Your task to perform on an android device: delete the emails in spam in the gmail app Image 0: 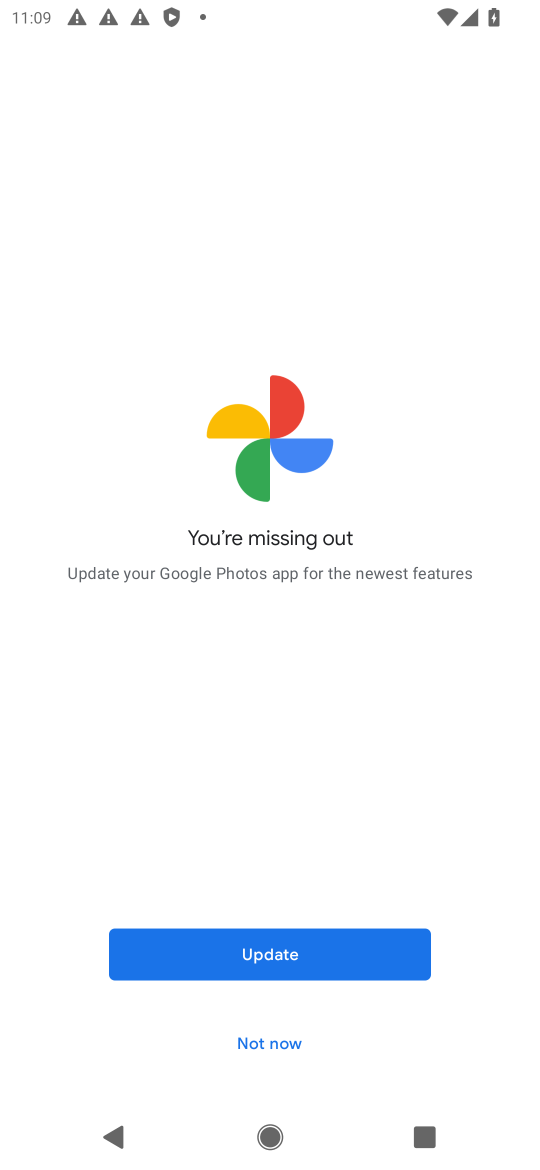
Step 0: press back button
Your task to perform on an android device: delete the emails in spam in the gmail app Image 1: 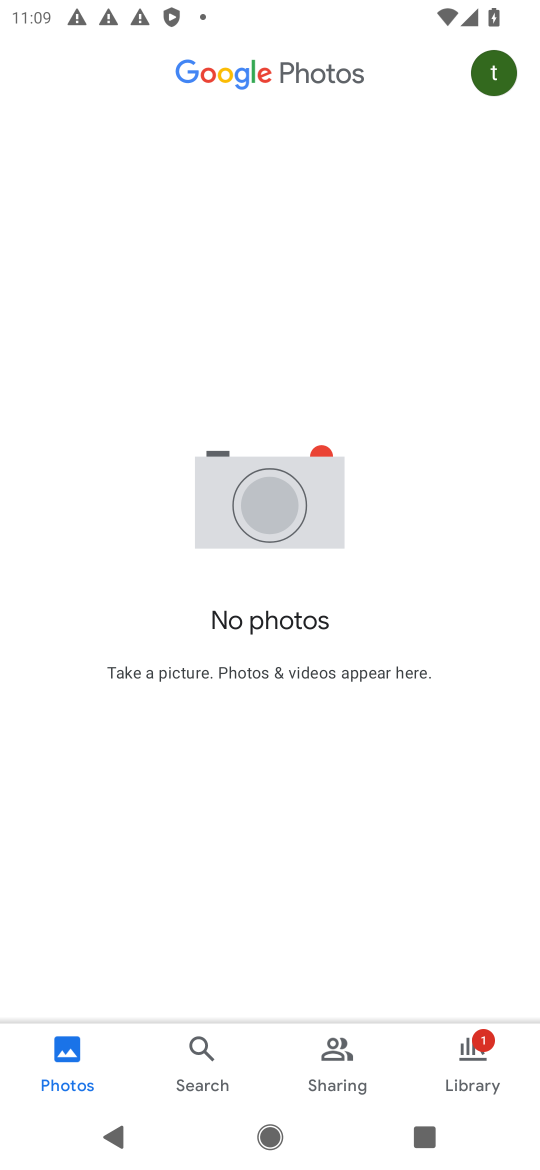
Step 1: press home button
Your task to perform on an android device: delete the emails in spam in the gmail app Image 2: 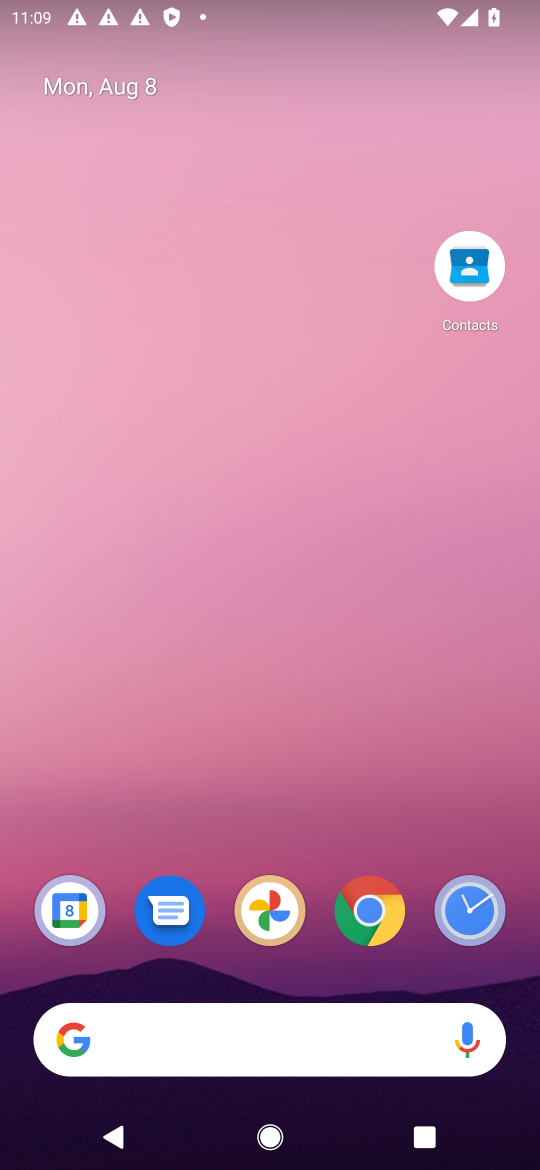
Step 2: drag from (288, 970) to (535, 402)
Your task to perform on an android device: delete the emails in spam in the gmail app Image 3: 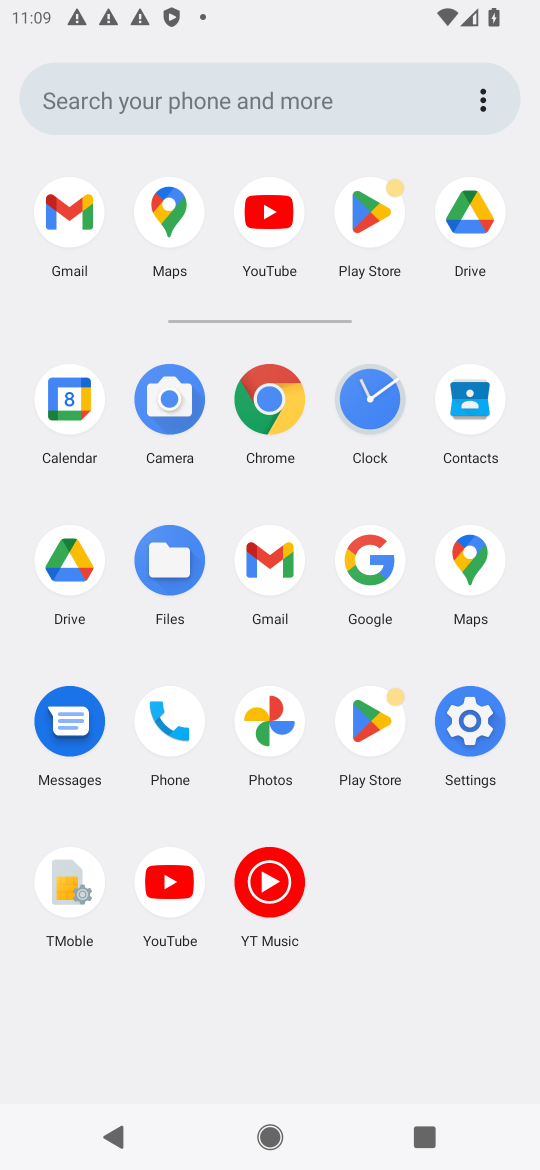
Step 3: click (264, 562)
Your task to perform on an android device: delete the emails in spam in the gmail app Image 4: 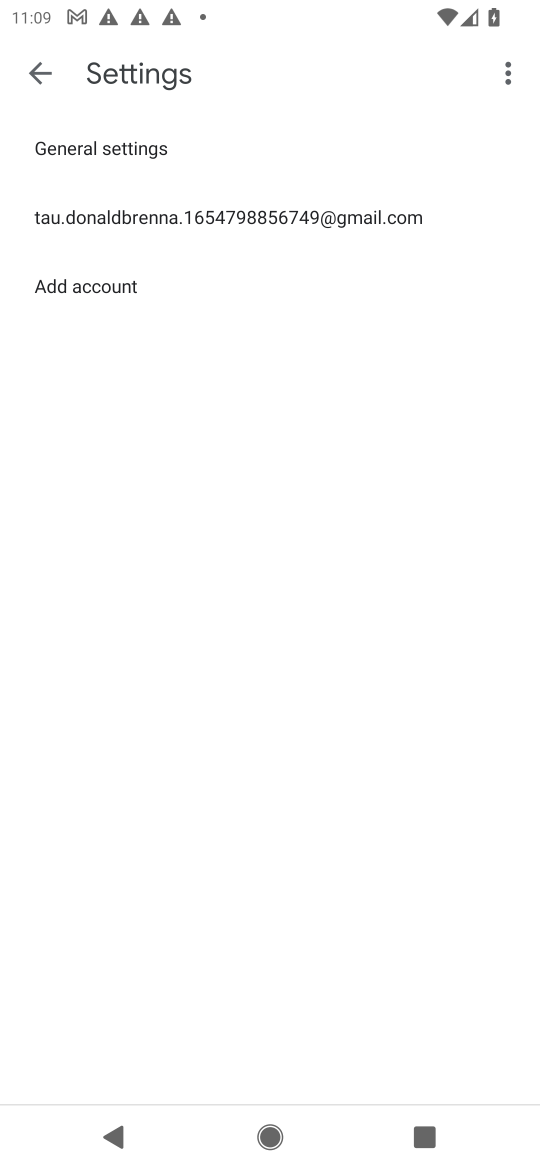
Step 4: click (49, 104)
Your task to perform on an android device: delete the emails in spam in the gmail app Image 5: 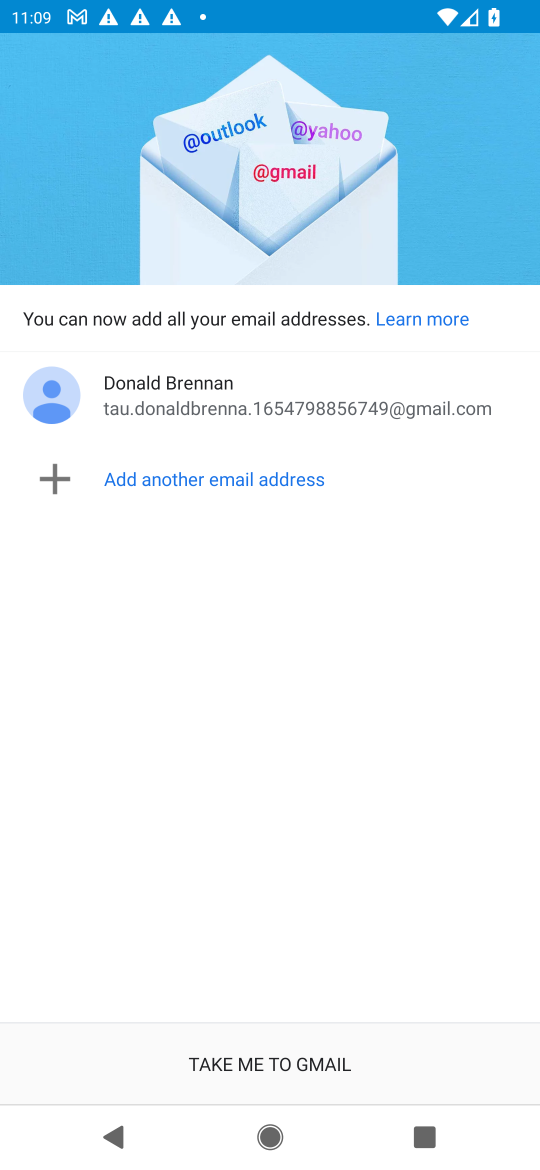
Step 5: click (337, 1060)
Your task to perform on an android device: delete the emails in spam in the gmail app Image 6: 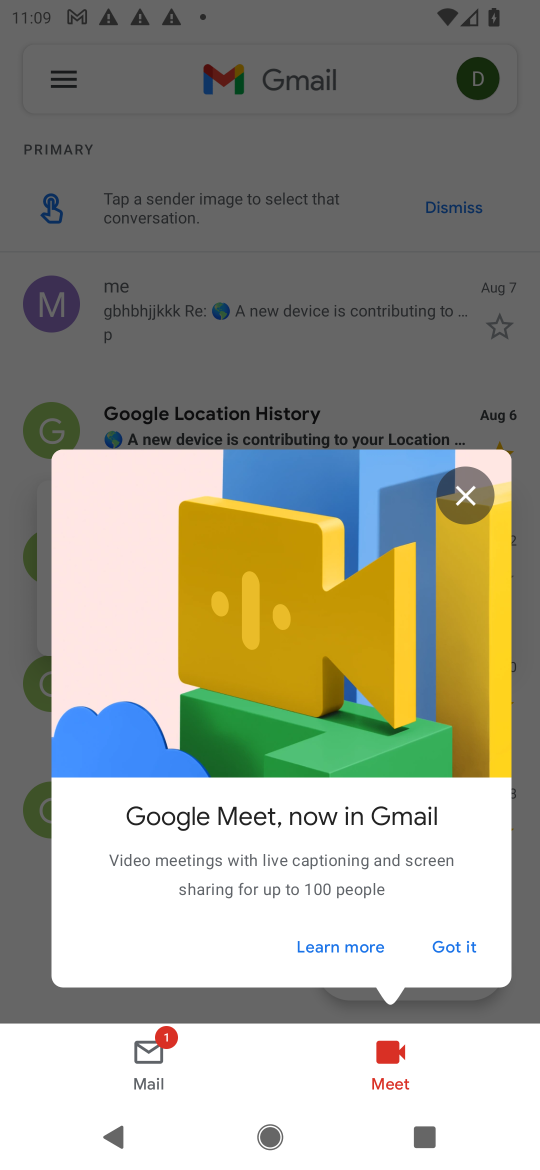
Step 6: click (443, 624)
Your task to perform on an android device: delete the emails in spam in the gmail app Image 7: 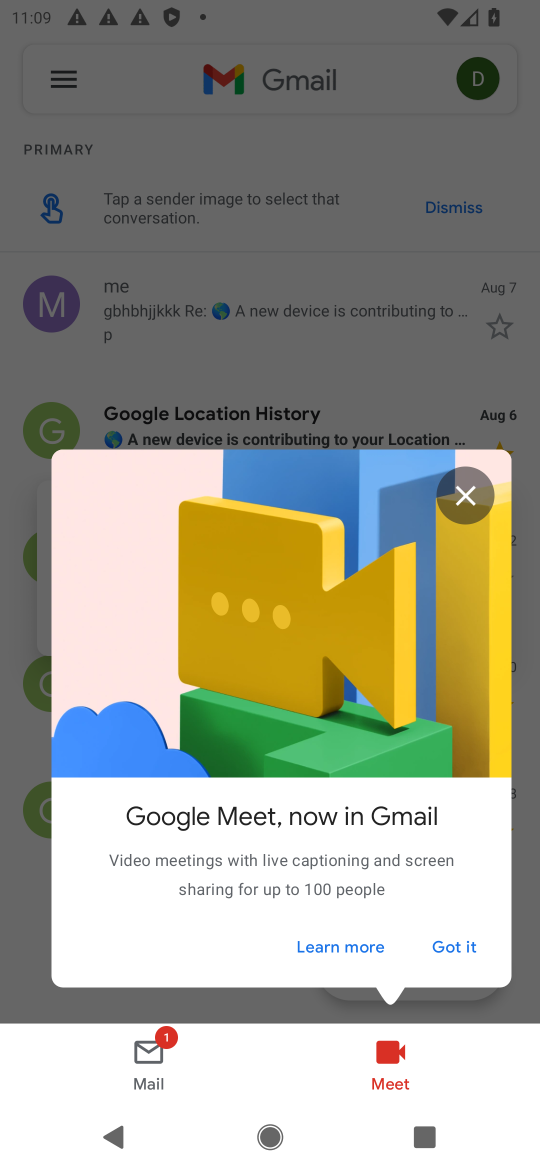
Step 7: click (467, 466)
Your task to perform on an android device: delete the emails in spam in the gmail app Image 8: 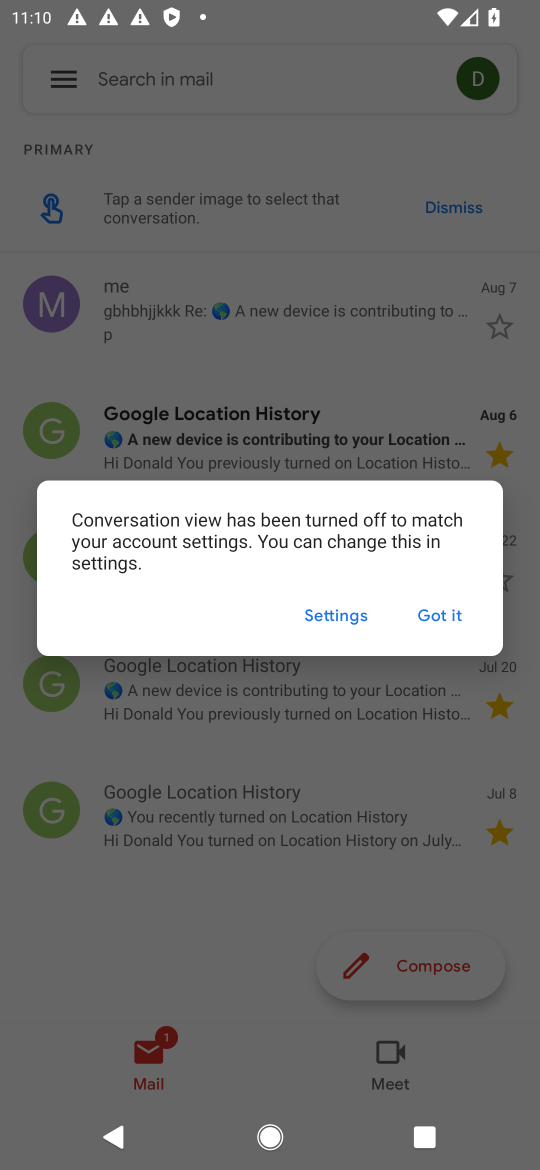
Step 8: click (453, 622)
Your task to perform on an android device: delete the emails in spam in the gmail app Image 9: 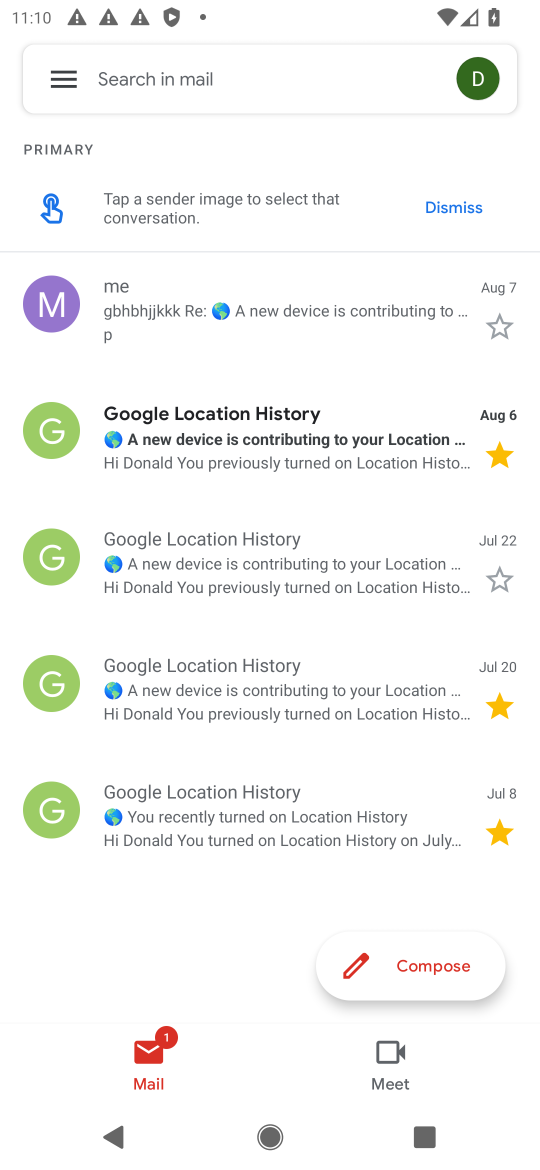
Step 9: click (90, 94)
Your task to perform on an android device: delete the emails in spam in the gmail app Image 10: 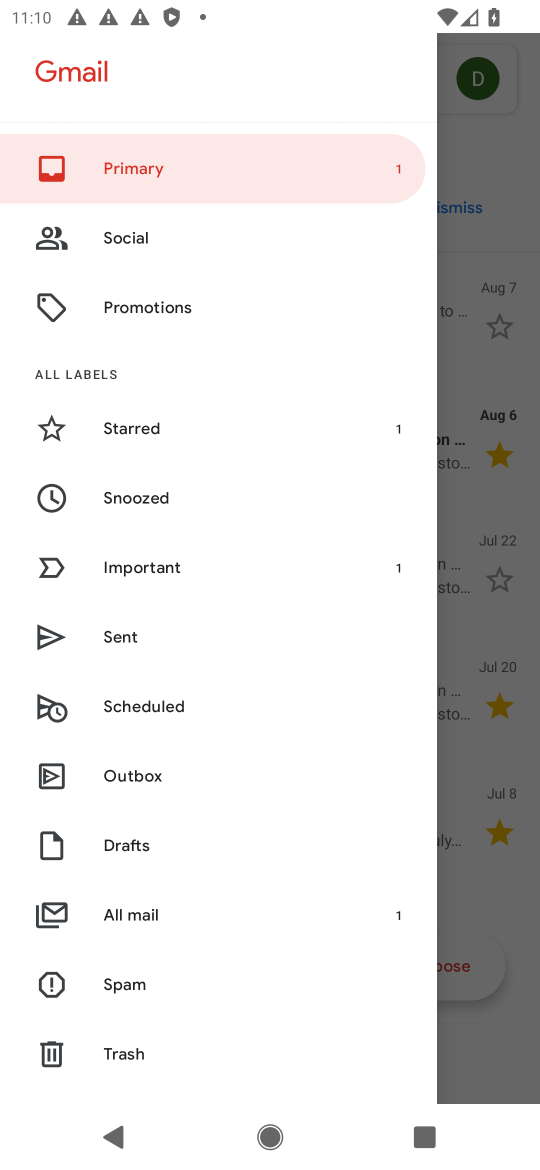
Step 10: click (179, 1005)
Your task to perform on an android device: delete the emails in spam in the gmail app Image 11: 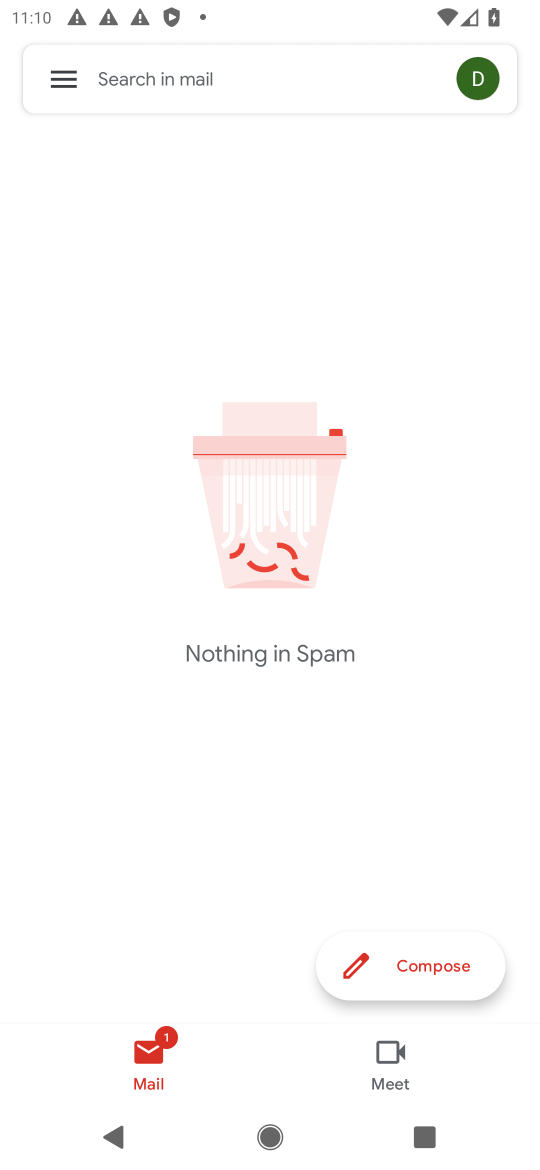
Step 11: task complete